Your task to perform on an android device: Go to CNN.com Image 0: 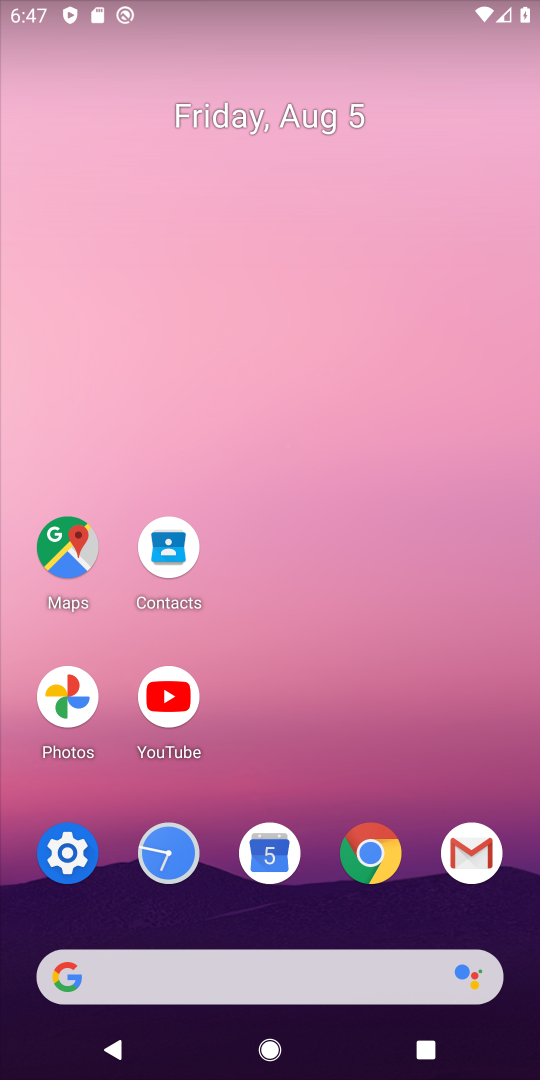
Step 0: click (367, 853)
Your task to perform on an android device: Go to CNN.com Image 1: 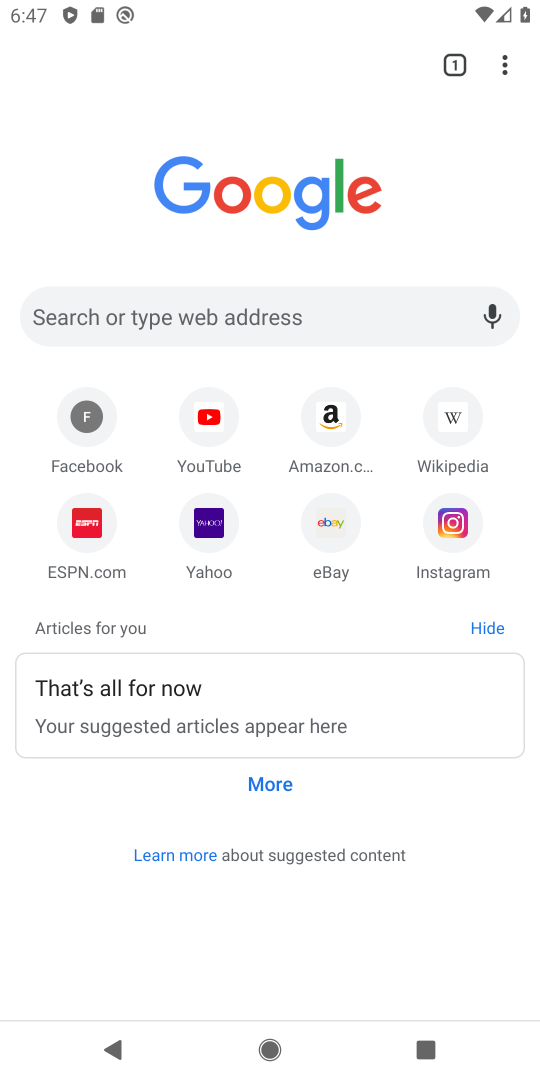
Step 1: click (210, 313)
Your task to perform on an android device: Go to CNN.com Image 2: 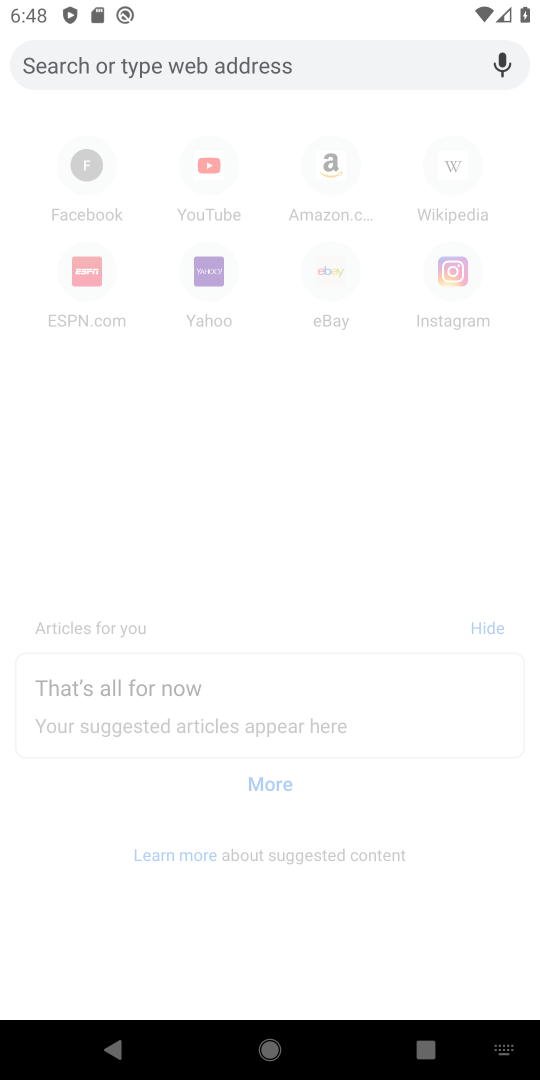
Step 2: type "cnn.com"
Your task to perform on an android device: Go to CNN.com Image 3: 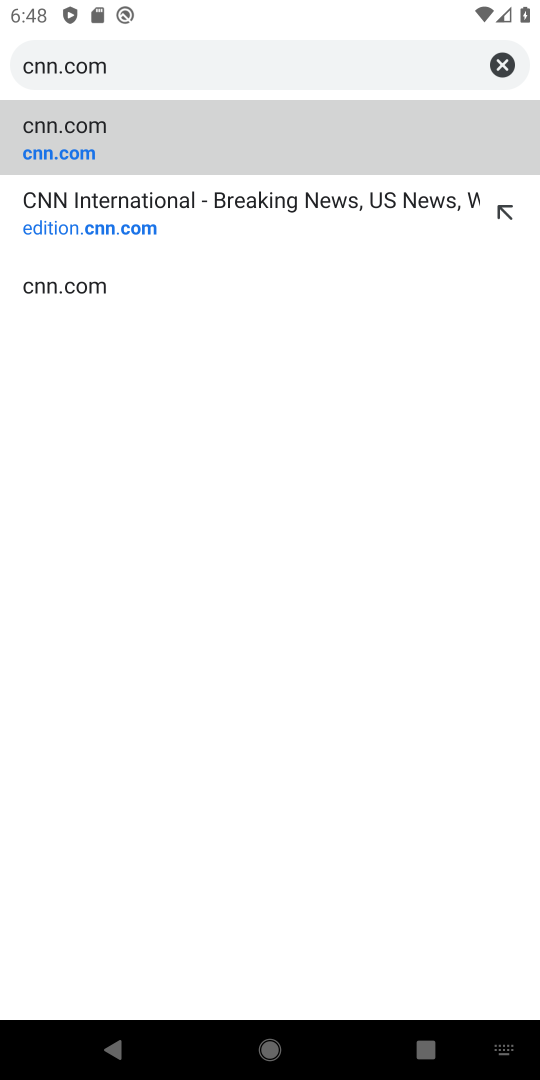
Step 3: click (69, 120)
Your task to perform on an android device: Go to CNN.com Image 4: 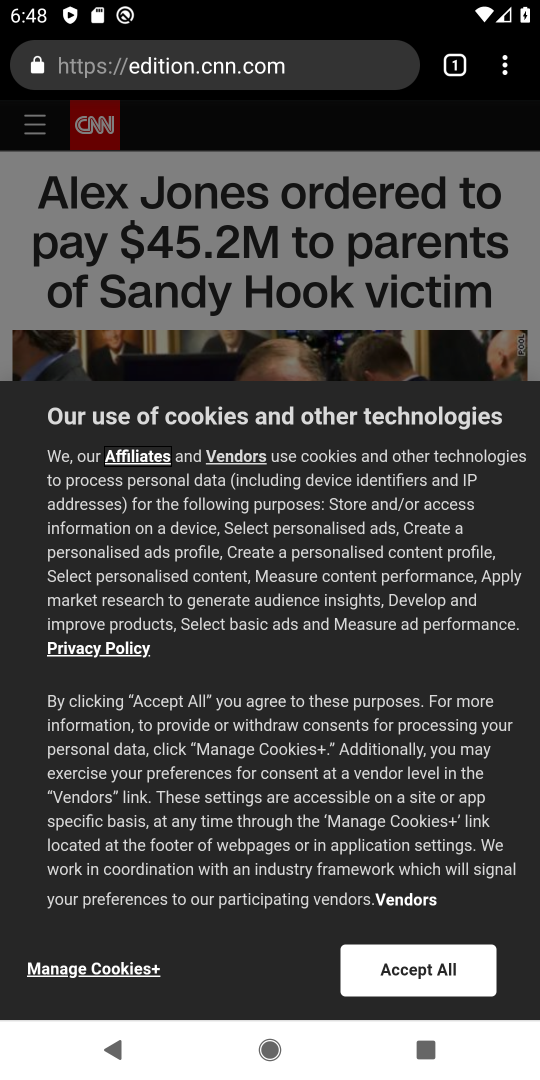
Step 4: click (410, 978)
Your task to perform on an android device: Go to CNN.com Image 5: 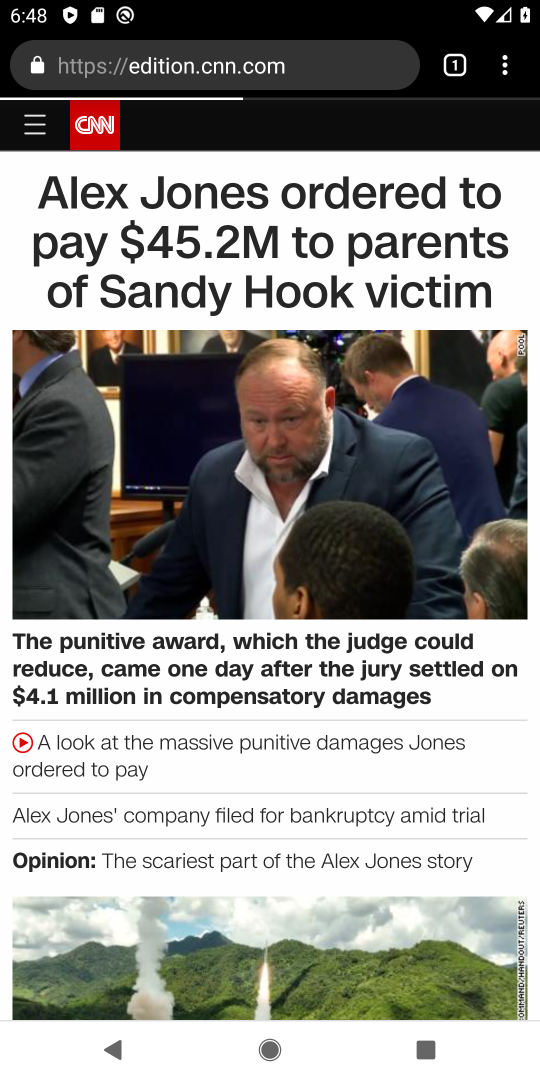
Step 5: task complete